Your task to perform on an android device: Go to Yahoo.com Image 0: 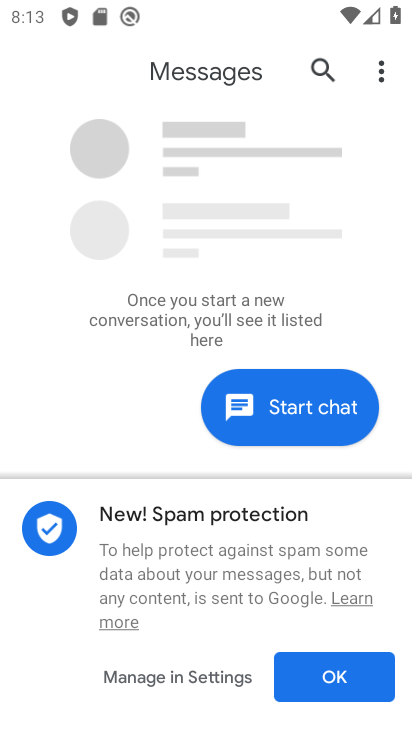
Step 0: press home button
Your task to perform on an android device: Go to Yahoo.com Image 1: 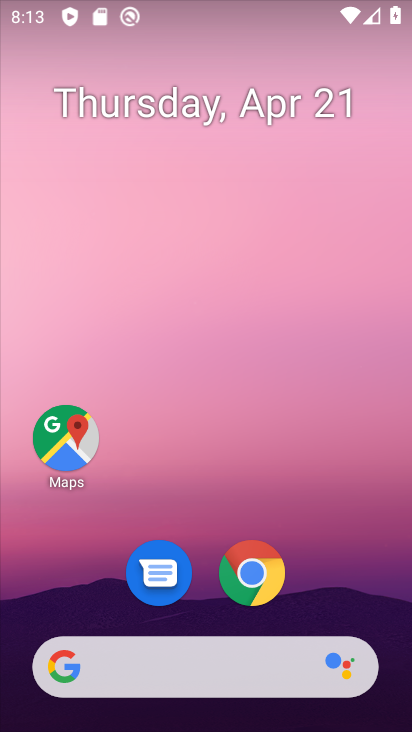
Step 1: click (246, 557)
Your task to perform on an android device: Go to Yahoo.com Image 2: 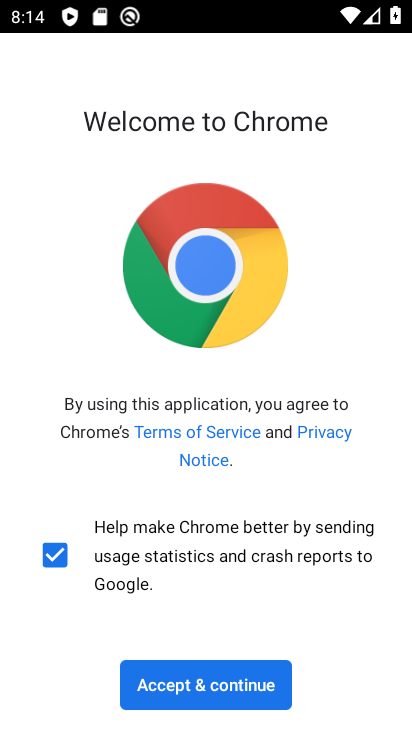
Step 2: click (198, 688)
Your task to perform on an android device: Go to Yahoo.com Image 3: 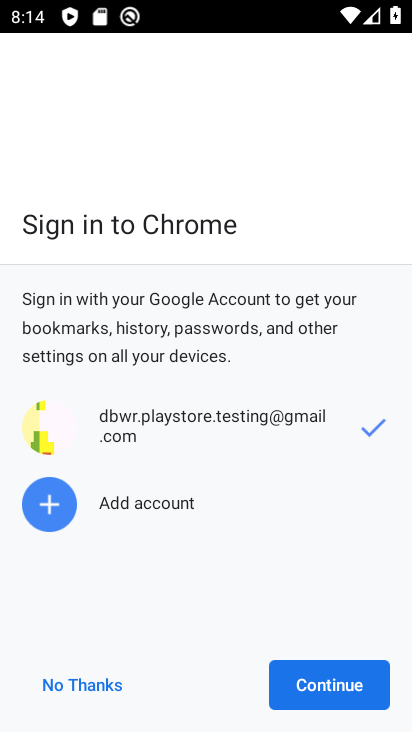
Step 3: click (321, 693)
Your task to perform on an android device: Go to Yahoo.com Image 4: 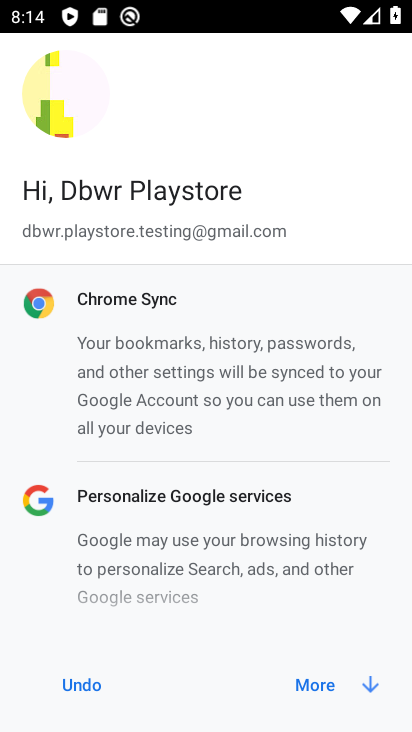
Step 4: click (321, 687)
Your task to perform on an android device: Go to Yahoo.com Image 5: 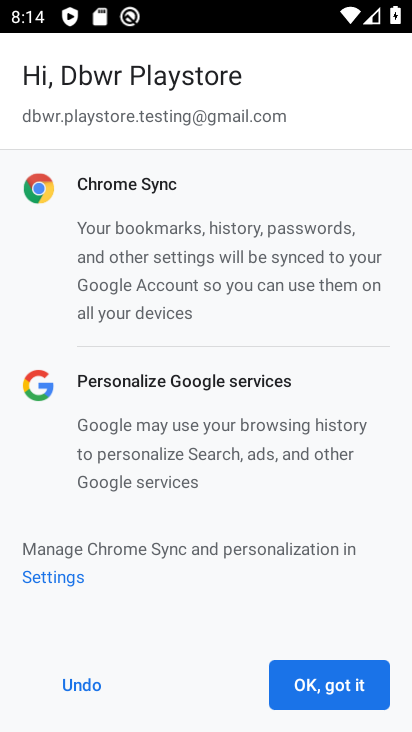
Step 5: click (325, 687)
Your task to perform on an android device: Go to Yahoo.com Image 6: 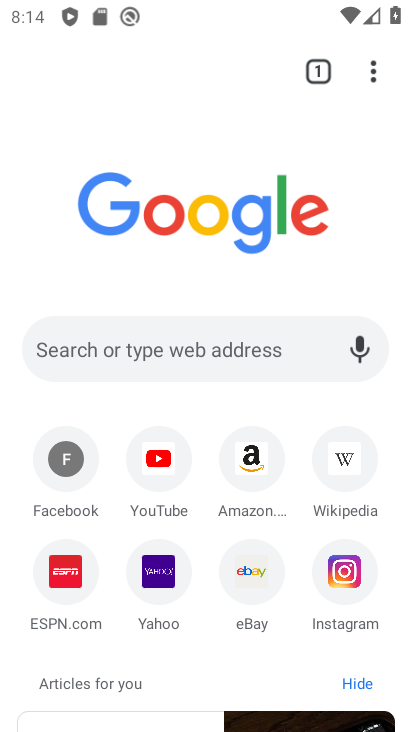
Step 6: click (224, 343)
Your task to perform on an android device: Go to Yahoo.com Image 7: 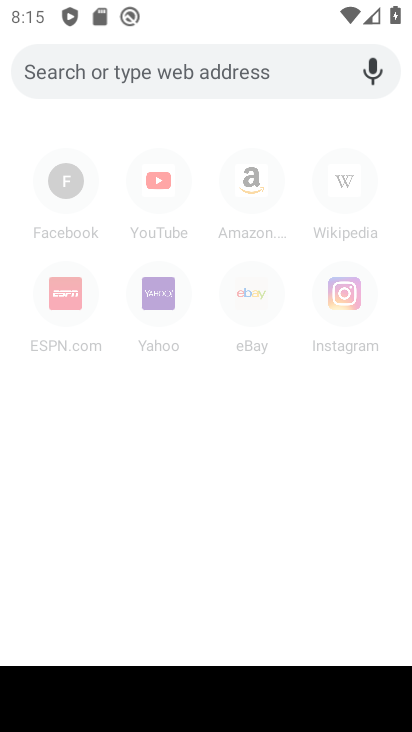
Step 7: type "yahoo.com"
Your task to perform on an android device: Go to Yahoo.com Image 8: 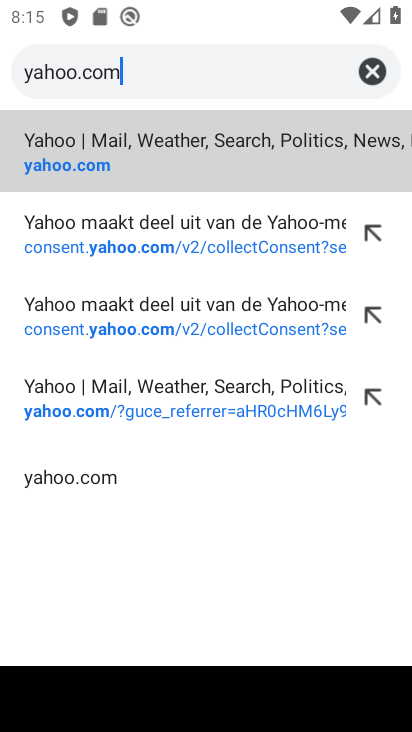
Step 8: click (117, 124)
Your task to perform on an android device: Go to Yahoo.com Image 9: 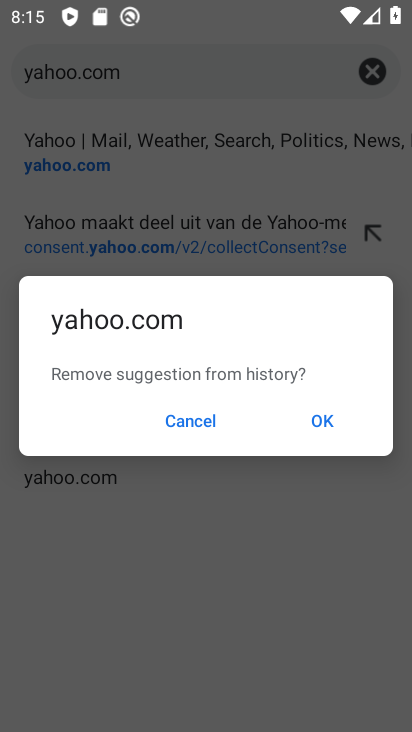
Step 9: click (199, 417)
Your task to perform on an android device: Go to Yahoo.com Image 10: 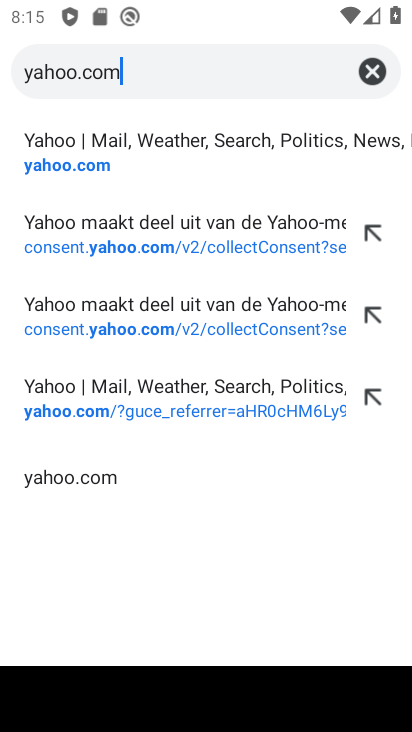
Step 10: click (119, 137)
Your task to perform on an android device: Go to Yahoo.com Image 11: 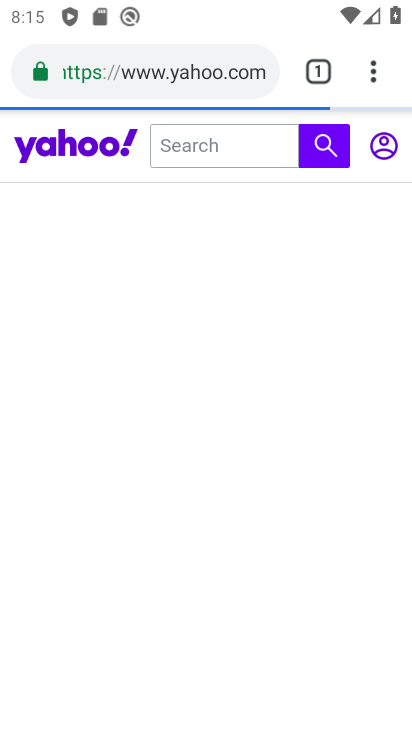
Step 11: task complete